Your task to perform on an android device: Open sound settings Image 0: 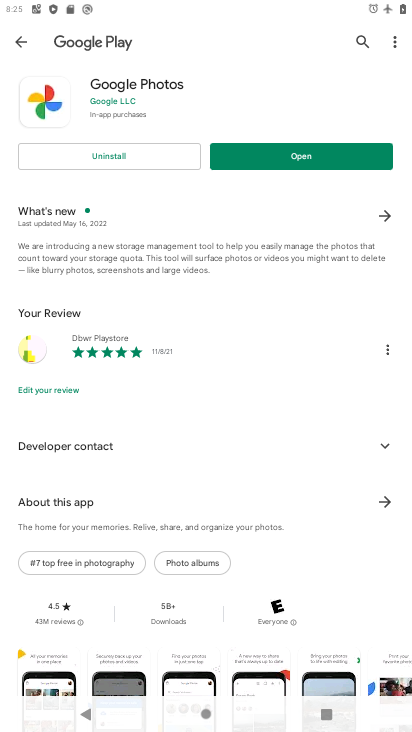
Step 0: press home button
Your task to perform on an android device: Open sound settings Image 1: 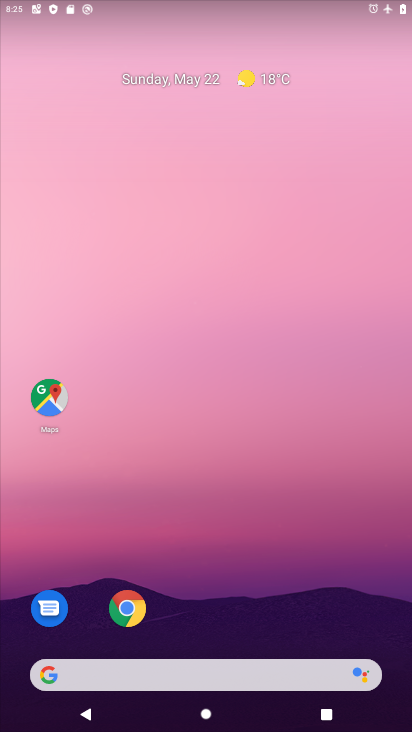
Step 1: drag from (228, 726) to (196, 51)
Your task to perform on an android device: Open sound settings Image 2: 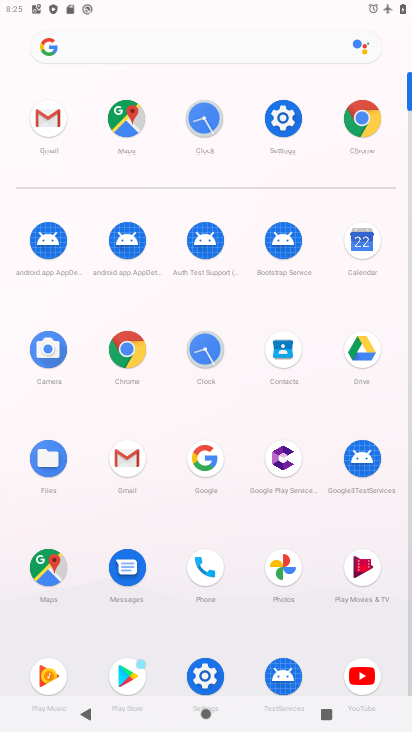
Step 2: click (291, 125)
Your task to perform on an android device: Open sound settings Image 3: 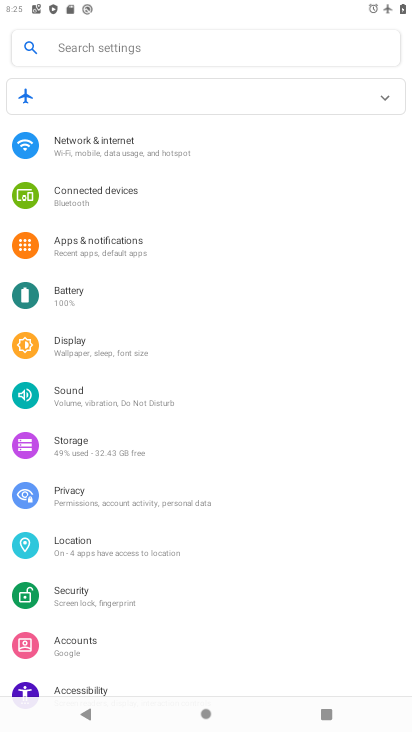
Step 3: click (86, 392)
Your task to perform on an android device: Open sound settings Image 4: 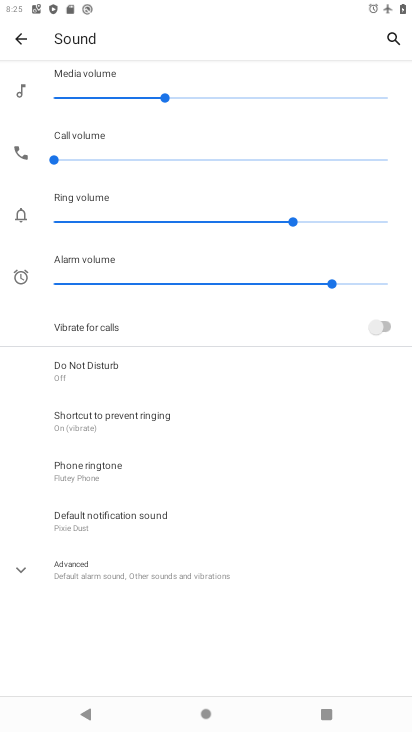
Step 4: task complete